Your task to perform on an android device: toggle sleep mode Image 0: 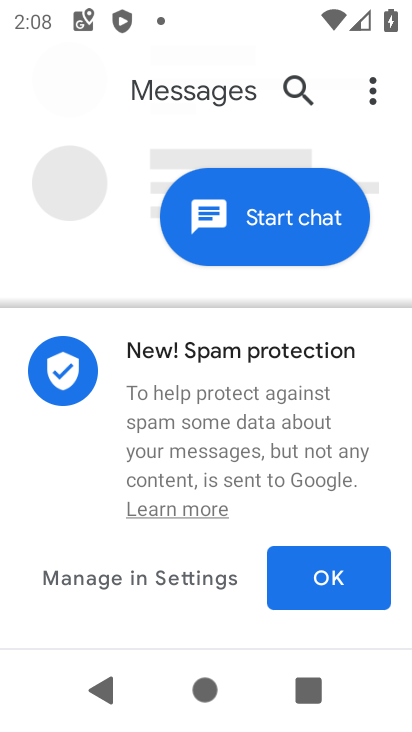
Step 0: press home button
Your task to perform on an android device: toggle sleep mode Image 1: 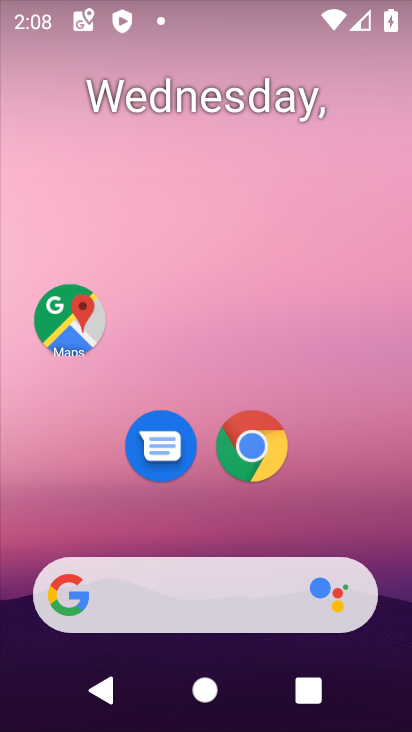
Step 1: drag from (246, 596) to (295, 41)
Your task to perform on an android device: toggle sleep mode Image 2: 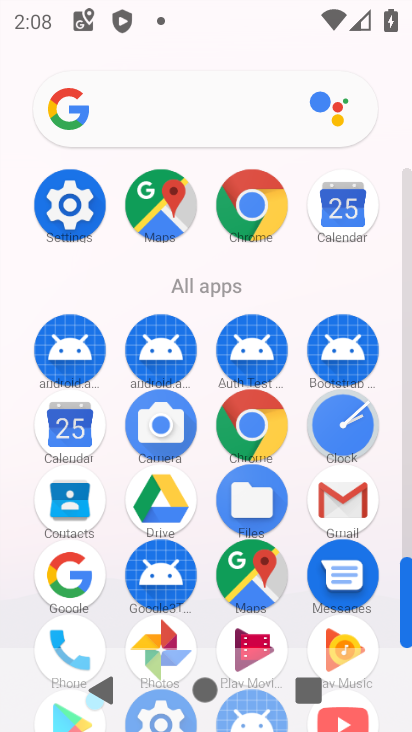
Step 2: click (75, 208)
Your task to perform on an android device: toggle sleep mode Image 3: 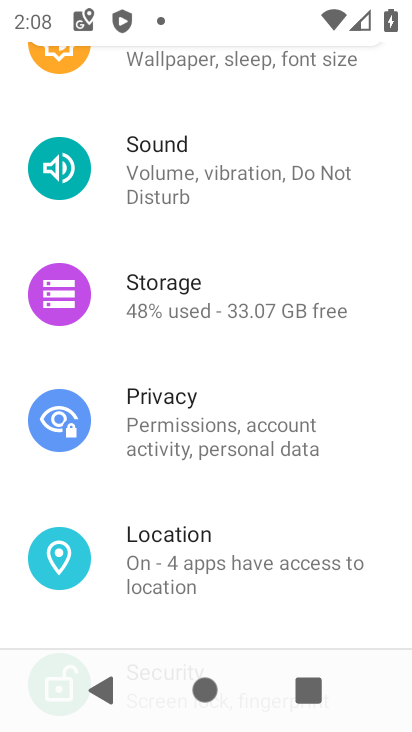
Step 3: drag from (140, 161) to (152, 329)
Your task to perform on an android device: toggle sleep mode Image 4: 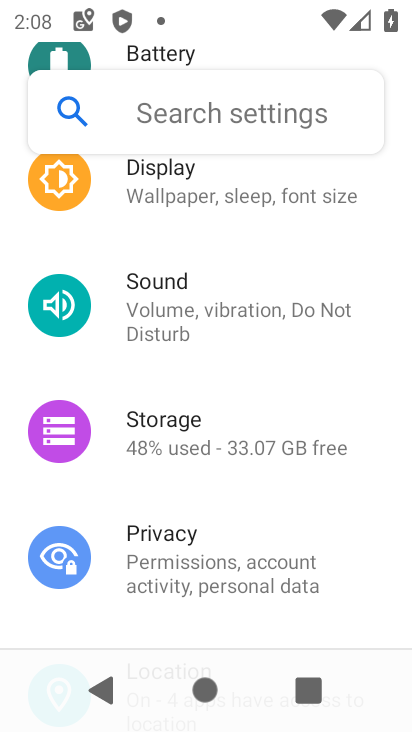
Step 4: click (151, 205)
Your task to perform on an android device: toggle sleep mode Image 5: 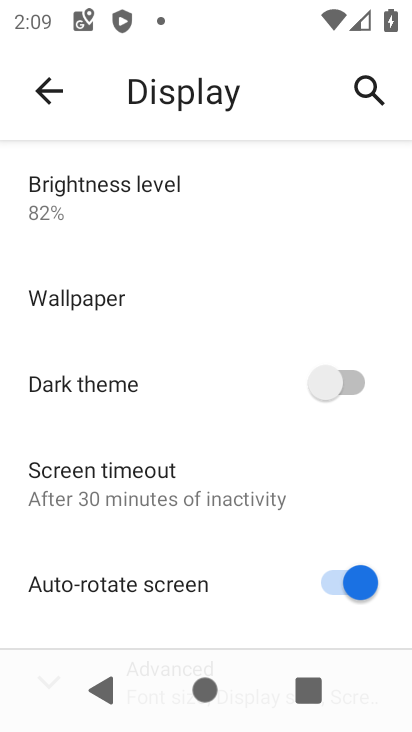
Step 5: drag from (191, 514) to (159, 15)
Your task to perform on an android device: toggle sleep mode Image 6: 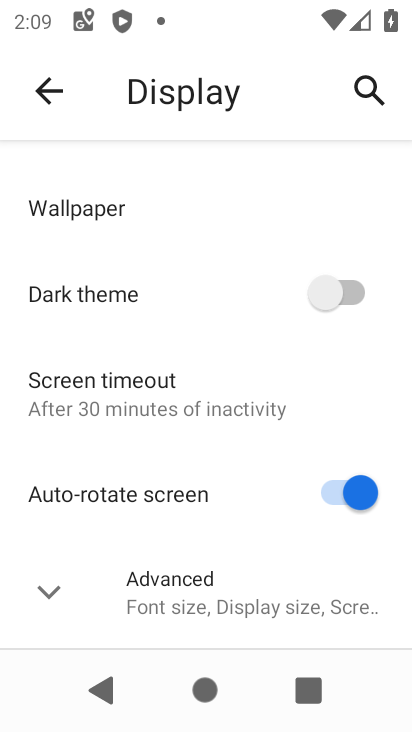
Step 6: click (188, 590)
Your task to perform on an android device: toggle sleep mode Image 7: 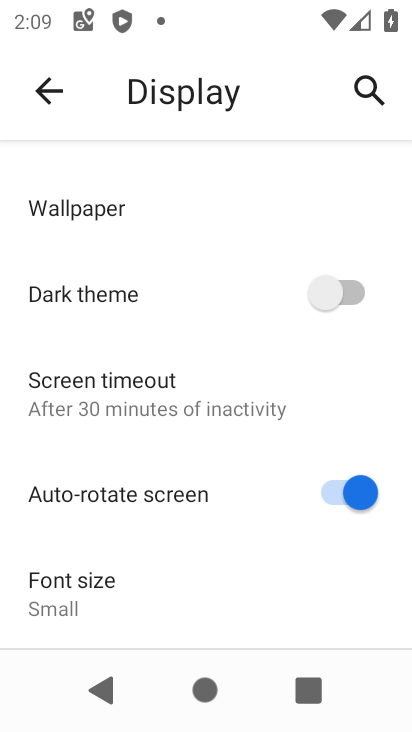
Step 7: task complete